Your task to perform on an android device: find photos in the google photos app Image 0: 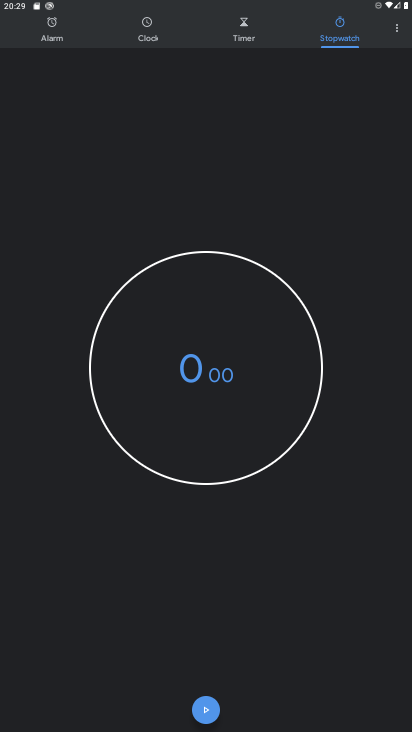
Step 0: press home button
Your task to perform on an android device: find photos in the google photos app Image 1: 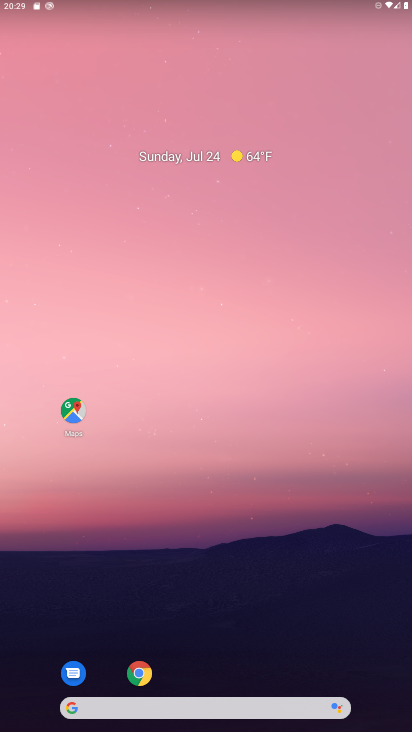
Step 1: drag from (283, 573) to (232, 152)
Your task to perform on an android device: find photos in the google photos app Image 2: 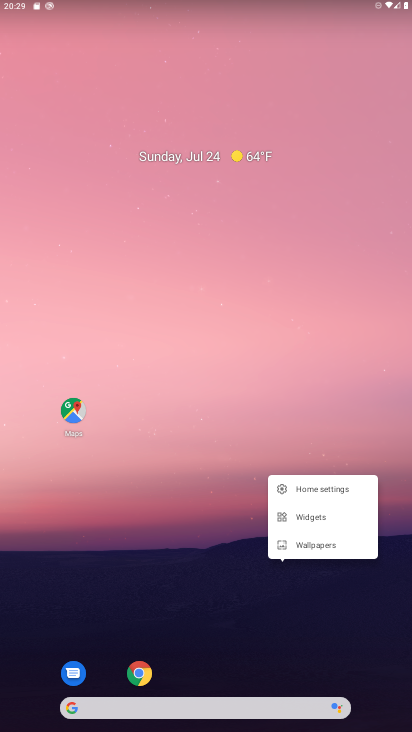
Step 2: click (231, 570)
Your task to perform on an android device: find photos in the google photos app Image 3: 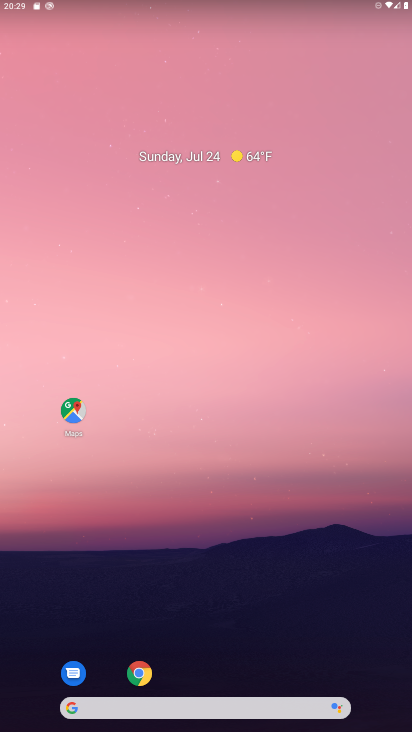
Step 3: drag from (328, 653) to (310, 212)
Your task to perform on an android device: find photos in the google photos app Image 4: 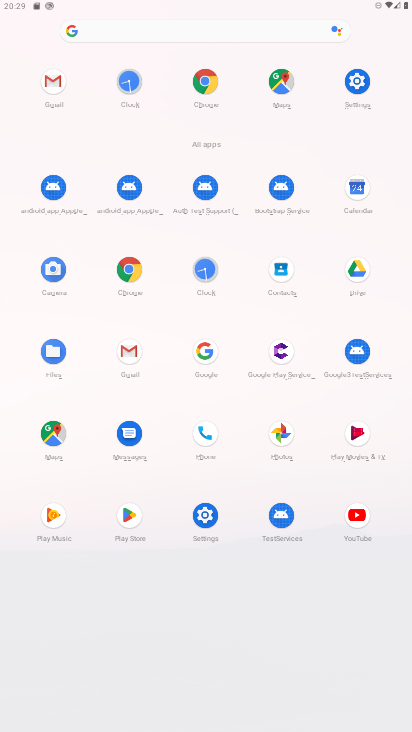
Step 4: click (283, 430)
Your task to perform on an android device: find photos in the google photos app Image 5: 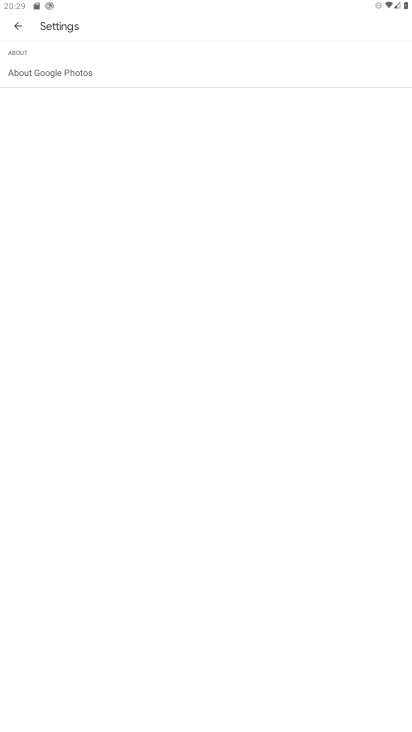
Step 5: click (17, 25)
Your task to perform on an android device: find photos in the google photos app Image 6: 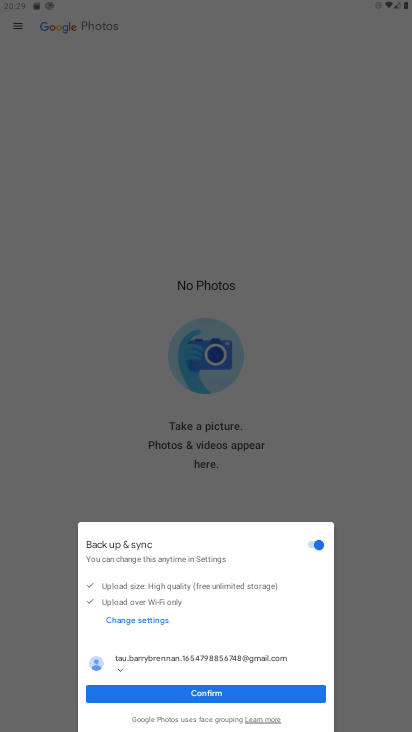
Step 6: click (259, 696)
Your task to perform on an android device: find photos in the google photos app Image 7: 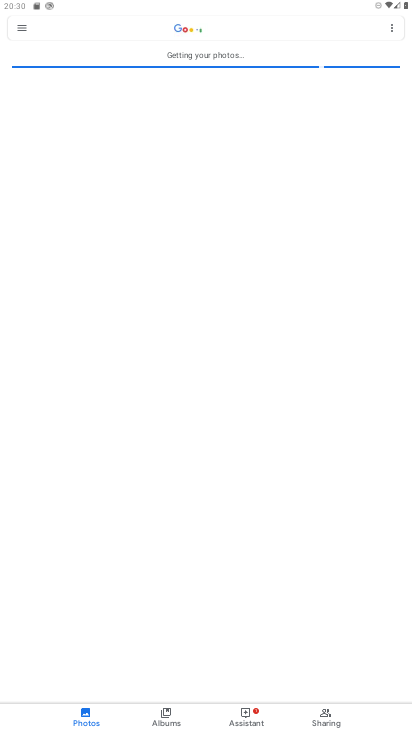
Step 7: click (87, 710)
Your task to perform on an android device: find photos in the google photos app Image 8: 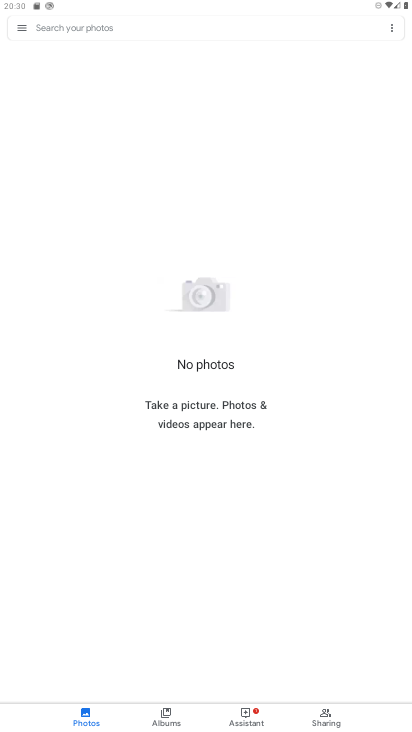
Step 8: task complete